Your task to perform on an android device: What's on my calendar tomorrow? Image 0: 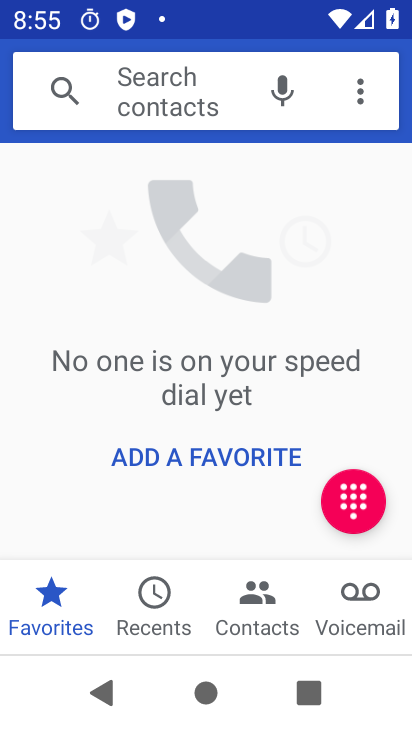
Step 0: press home button
Your task to perform on an android device: What's on my calendar tomorrow? Image 1: 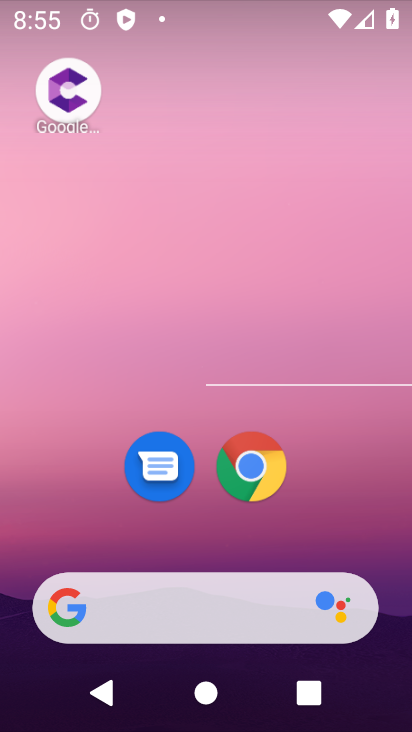
Step 1: drag from (54, 488) to (240, 197)
Your task to perform on an android device: What's on my calendar tomorrow? Image 2: 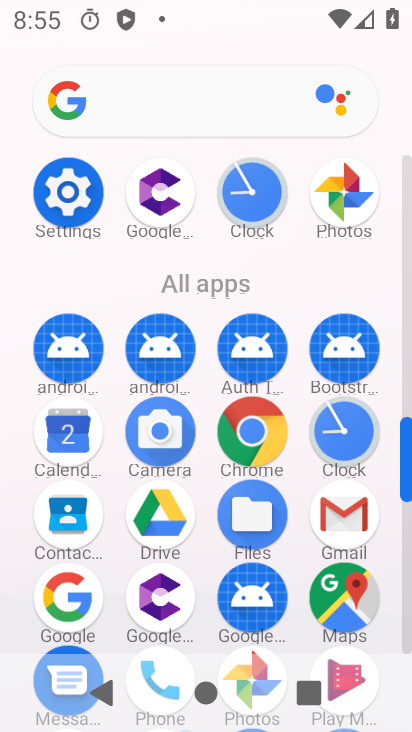
Step 2: click (59, 432)
Your task to perform on an android device: What's on my calendar tomorrow? Image 3: 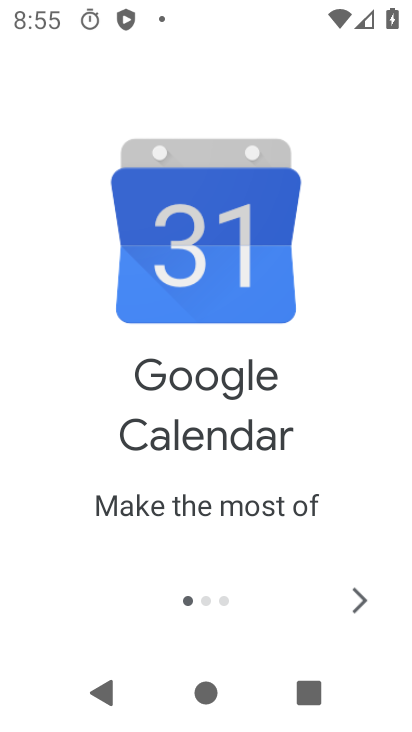
Step 3: click (364, 607)
Your task to perform on an android device: What's on my calendar tomorrow? Image 4: 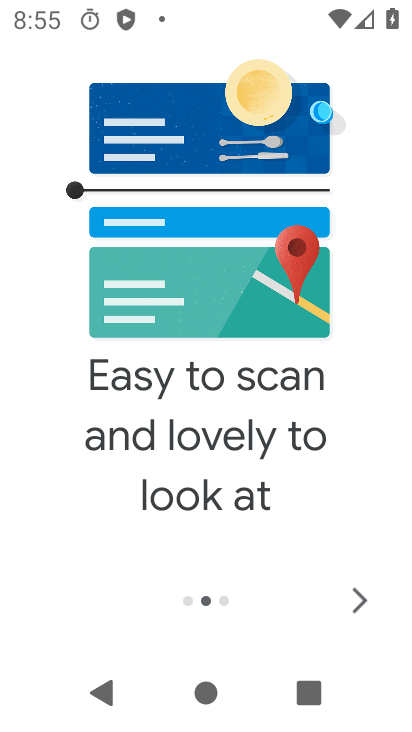
Step 4: click (364, 607)
Your task to perform on an android device: What's on my calendar tomorrow? Image 5: 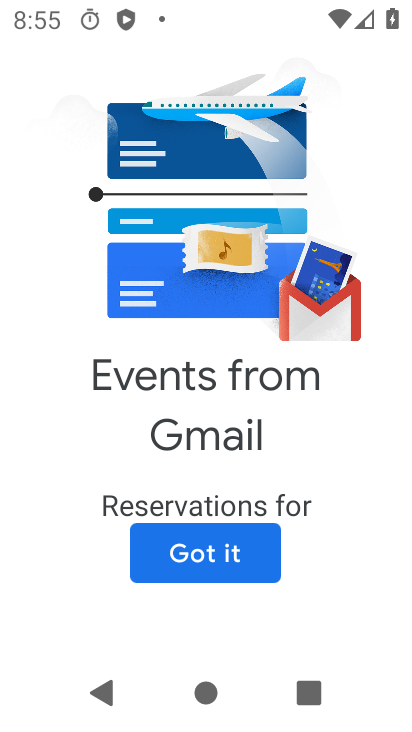
Step 5: click (222, 551)
Your task to perform on an android device: What's on my calendar tomorrow? Image 6: 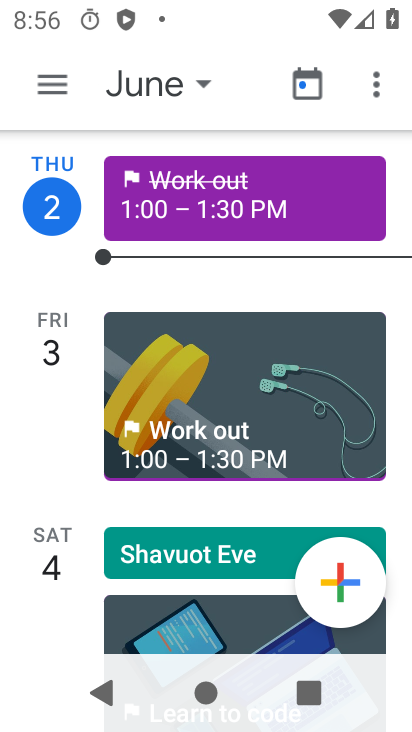
Step 6: click (145, 89)
Your task to perform on an android device: What's on my calendar tomorrow? Image 7: 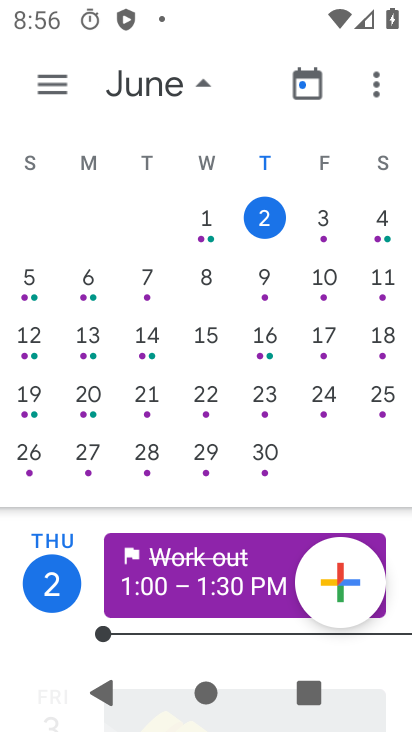
Step 7: click (327, 225)
Your task to perform on an android device: What's on my calendar tomorrow? Image 8: 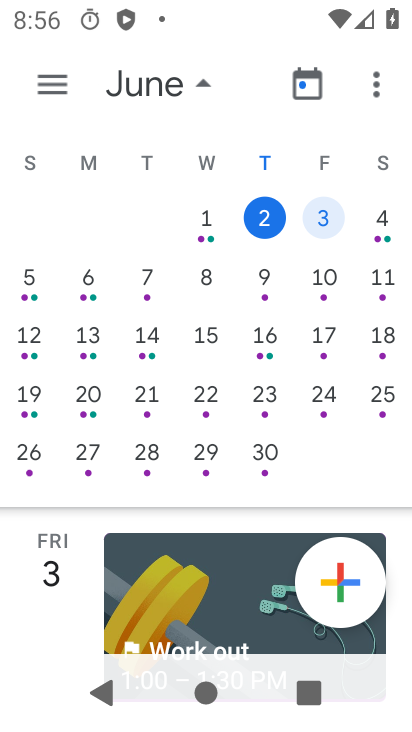
Step 8: task complete